Your task to perform on an android device: turn notification dots on Image 0: 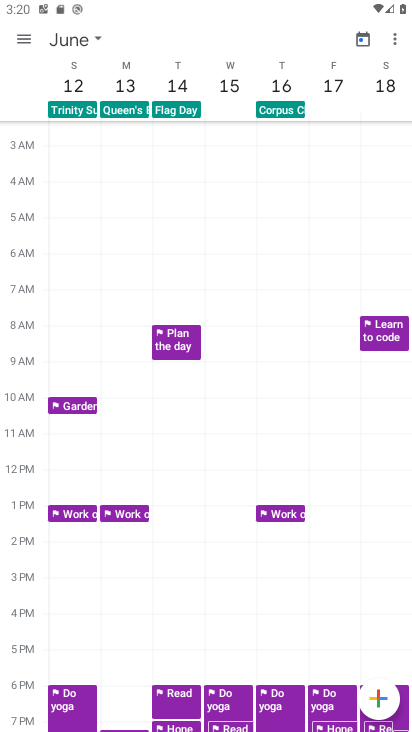
Step 0: press home button
Your task to perform on an android device: turn notification dots on Image 1: 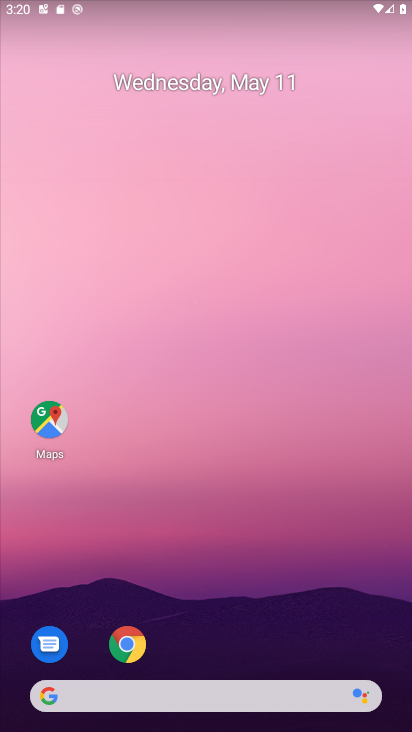
Step 1: drag from (202, 671) to (159, 117)
Your task to perform on an android device: turn notification dots on Image 2: 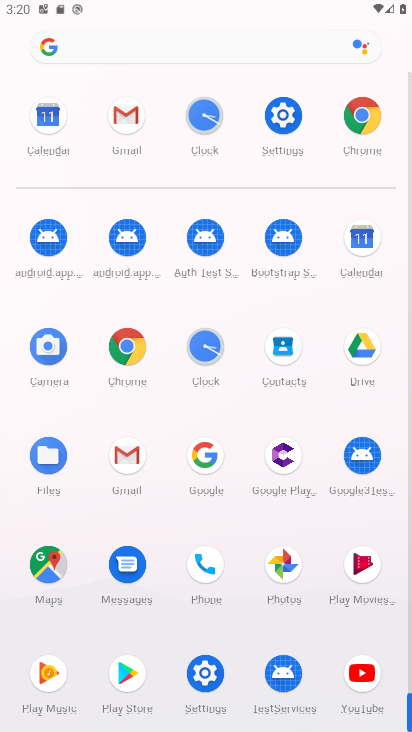
Step 2: click (288, 113)
Your task to perform on an android device: turn notification dots on Image 3: 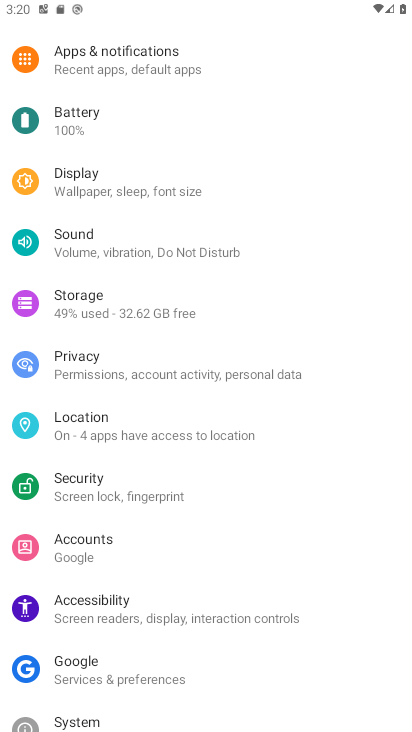
Step 3: click (80, 68)
Your task to perform on an android device: turn notification dots on Image 4: 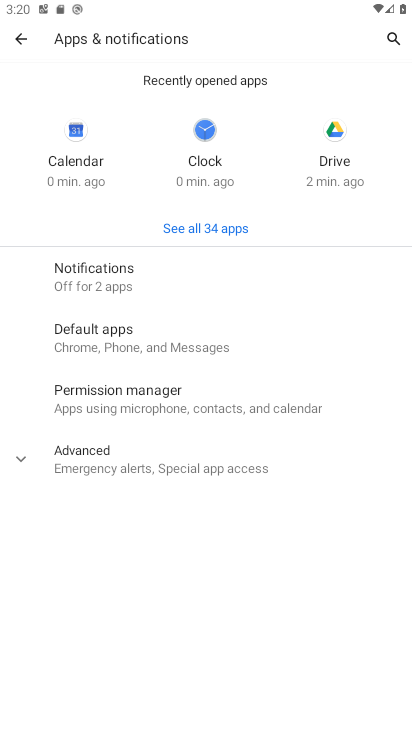
Step 4: click (137, 267)
Your task to perform on an android device: turn notification dots on Image 5: 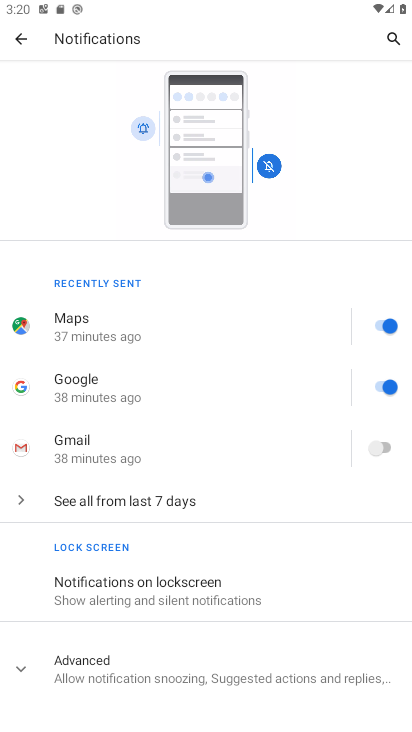
Step 5: click (175, 680)
Your task to perform on an android device: turn notification dots on Image 6: 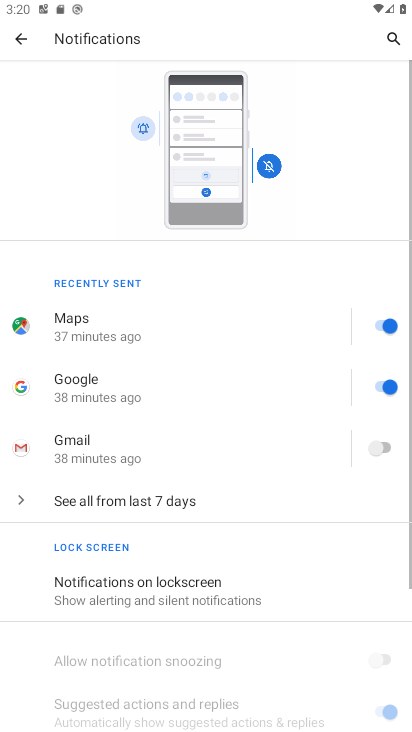
Step 6: drag from (176, 677) to (184, 231)
Your task to perform on an android device: turn notification dots on Image 7: 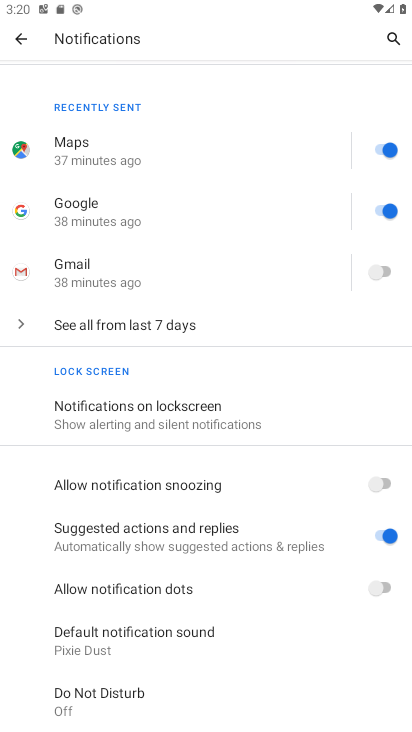
Step 7: click (378, 582)
Your task to perform on an android device: turn notification dots on Image 8: 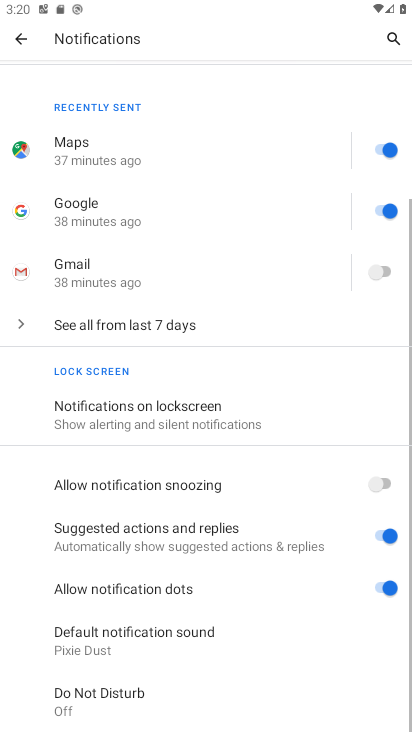
Step 8: task complete